Your task to perform on an android device: turn off sleep mode Image 0: 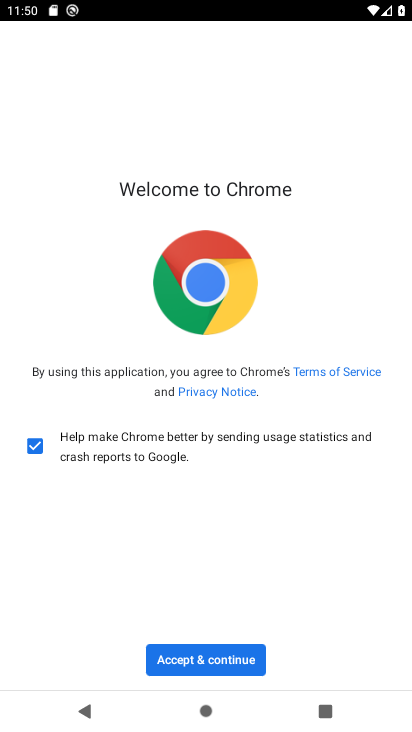
Step 0: press home button
Your task to perform on an android device: turn off sleep mode Image 1: 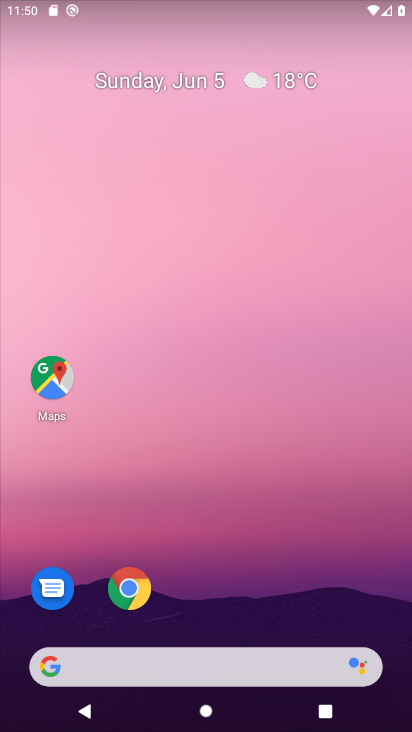
Step 1: drag from (183, 5) to (202, 537)
Your task to perform on an android device: turn off sleep mode Image 2: 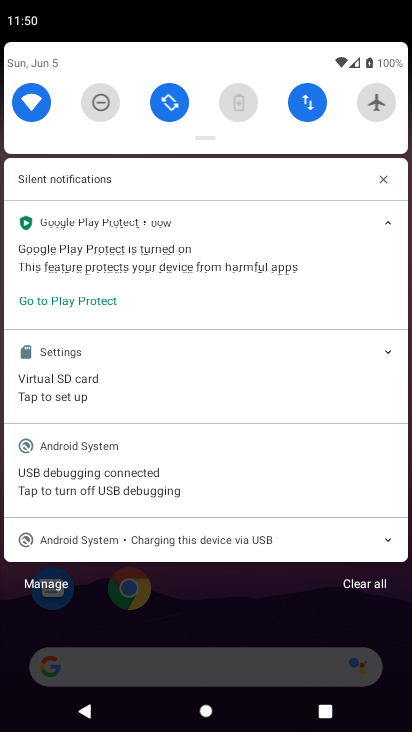
Step 2: drag from (212, 139) to (214, 717)
Your task to perform on an android device: turn off sleep mode Image 3: 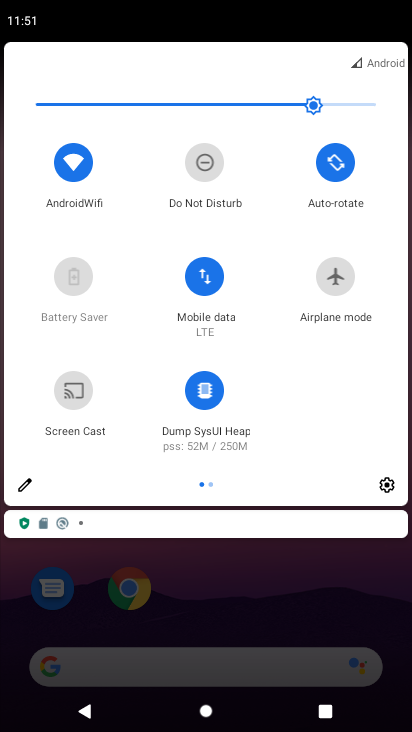
Step 3: click (28, 483)
Your task to perform on an android device: turn off sleep mode Image 4: 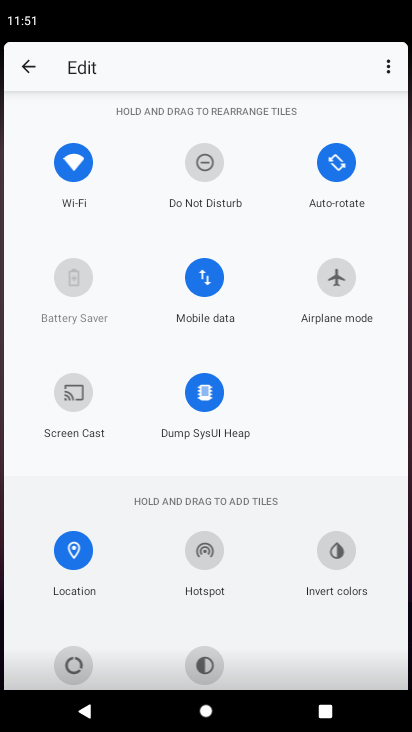
Step 4: task complete